Your task to perform on an android device: Go to Amazon Image 0: 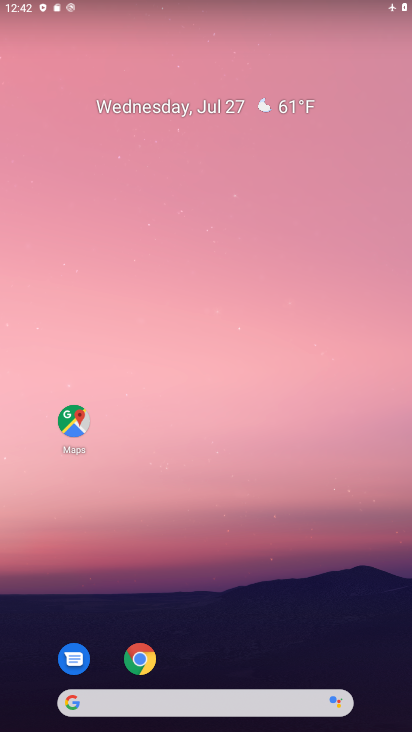
Step 0: click (139, 655)
Your task to perform on an android device: Go to Amazon Image 1: 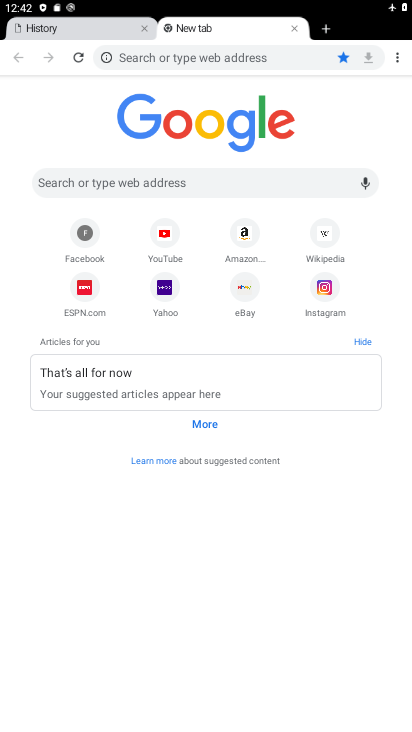
Step 1: click (238, 239)
Your task to perform on an android device: Go to Amazon Image 2: 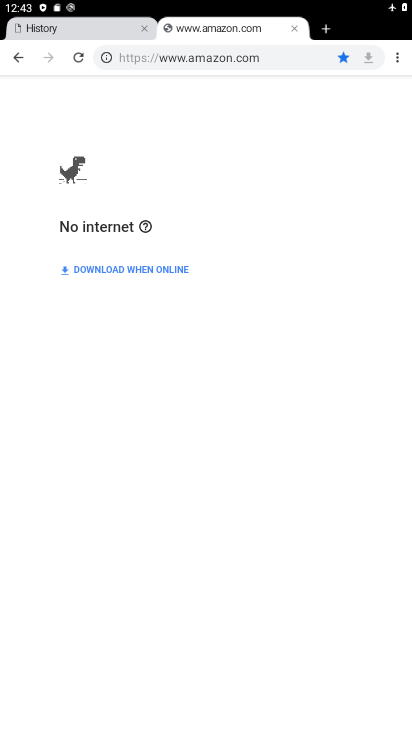
Step 2: task complete